Your task to perform on an android device: clear all cookies in the chrome app Image 0: 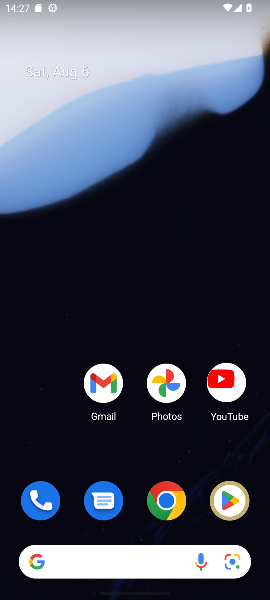
Step 0: press home button
Your task to perform on an android device: clear all cookies in the chrome app Image 1: 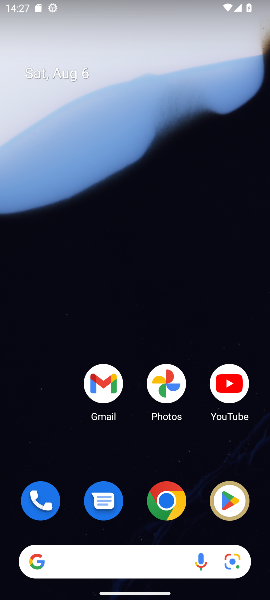
Step 1: click (172, 496)
Your task to perform on an android device: clear all cookies in the chrome app Image 2: 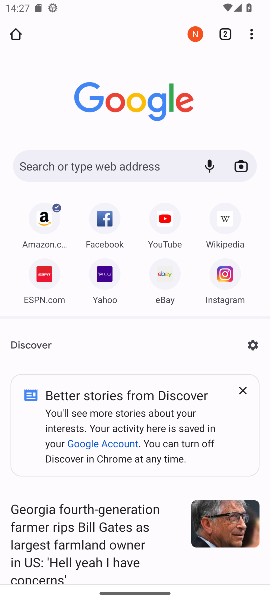
Step 2: drag from (247, 33) to (157, 308)
Your task to perform on an android device: clear all cookies in the chrome app Image 3: 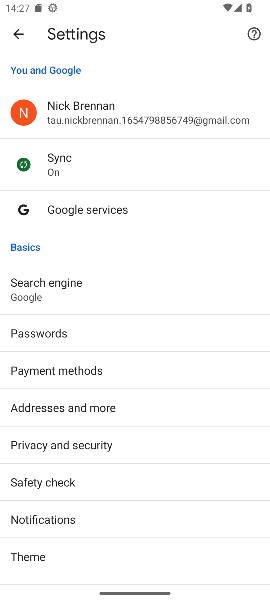
Step 3: drag from (174, 505) to (155, 206)
Your task to perform on an android device: clear all cookies in the chrome app Image 4: 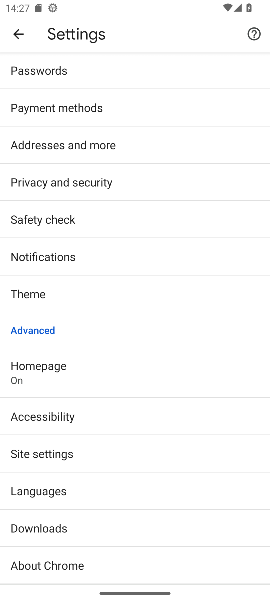
Step 4: click (60, 179)
Your task to perform on an android device: clear all cookies in the chrome app Image 5: 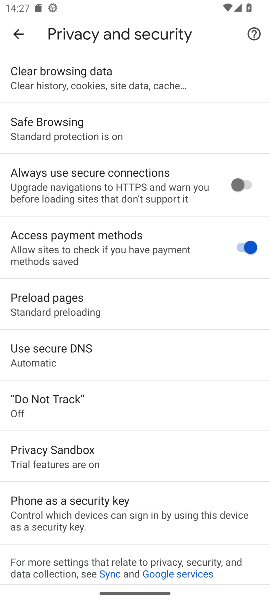
Step 5: drag from (190, 545) to (182, 165)
Your task to perform on an android device: clear all cookies in the chrome app Image 6: 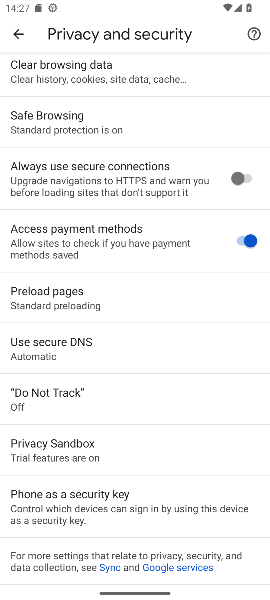
Step 6: click (84, 72)
Your task to perform on an android device: clear all cookies in the chrome app Image 7: 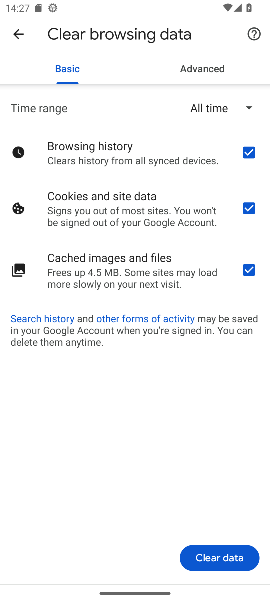
Step 7: click (247, 153)
Your task to perform on an android device: clear all cookies in the chrome app Image 8: 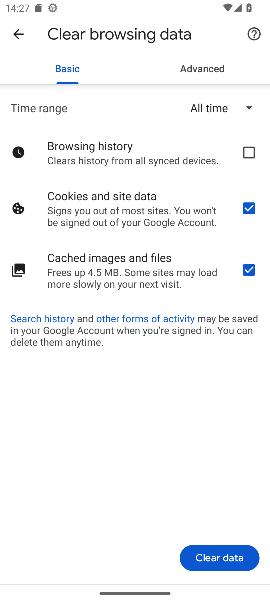
Step 8: click (248, 276)
Your task to perform on an android device: clear all cookies in the chrome app Image 9: 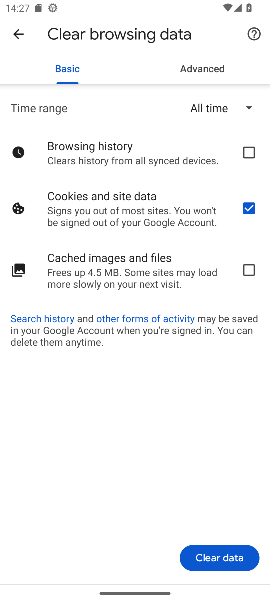
Step 9: click (229, 561)
Your task to perform on an android device: clear all cookies in the chrome app Image 10: 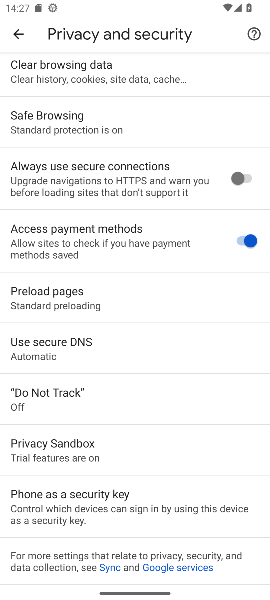
Step 10: task complete